Your task to perform on an android device: toggle sleep mode Image 0: 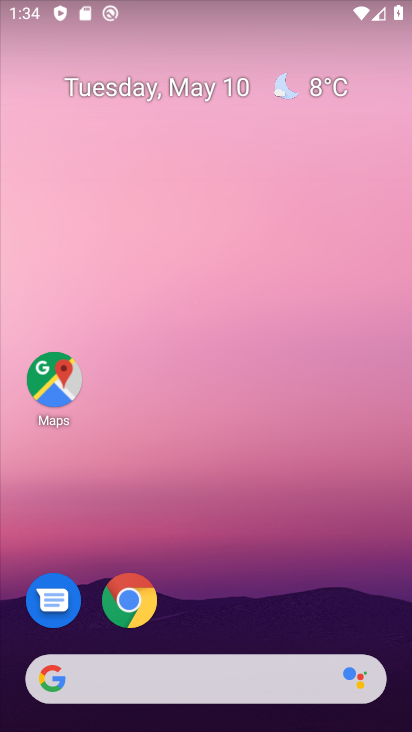
Step 0: drag from (196, 625) to (229, 210)
Your task to perform on an android device: toggle sleep mode Image 1: 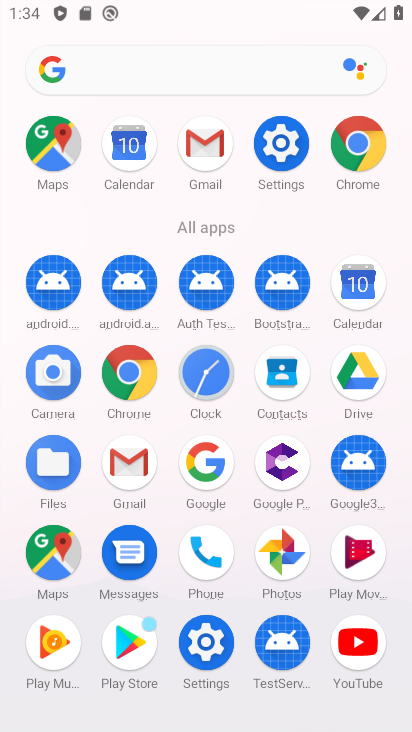
Step 1: click (279, 141)
Your task to perform on an android device: toggle sleep mode Image 2: 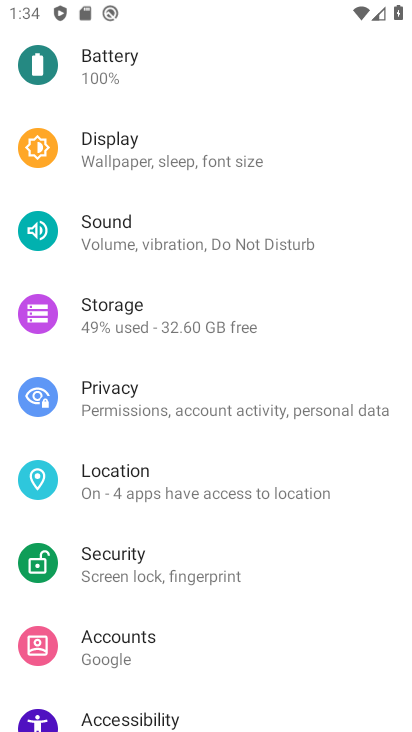
Step 2: click (141, 138)
Your task to perform on an android device: toggle sleep mode Image 3: 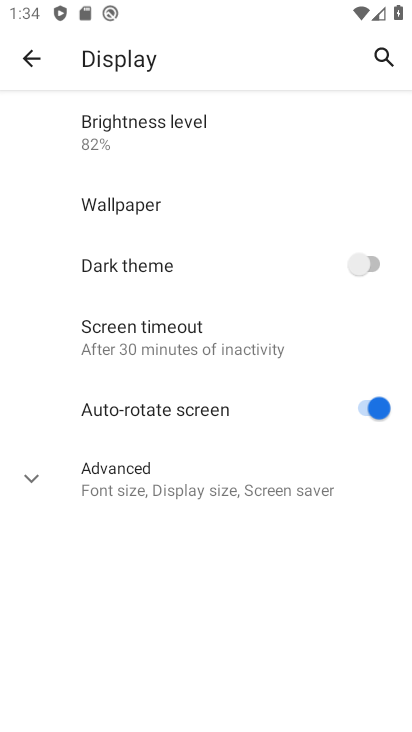
Step 3: click (30, 472)
Your task to perform on an android device: toggle sleep mode Image 4: 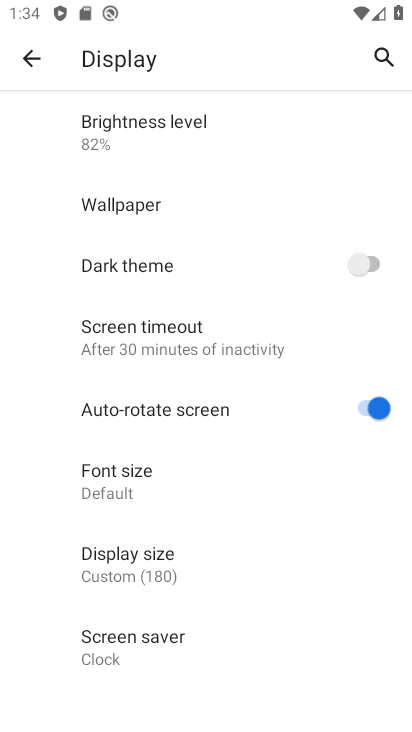
Step 4: task complete